Your task to perform on an android device: see tabs open on other devices in the chrome app Image 0: 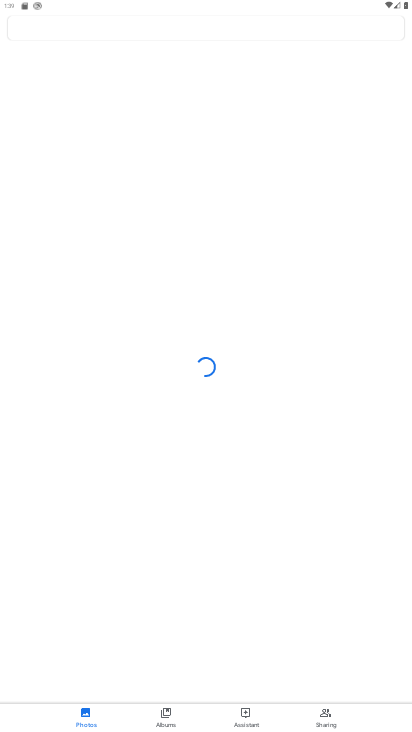
Step 0: press home button
Your task to perform on an android device: see tabs open on other devices in the chrome app Image 1: 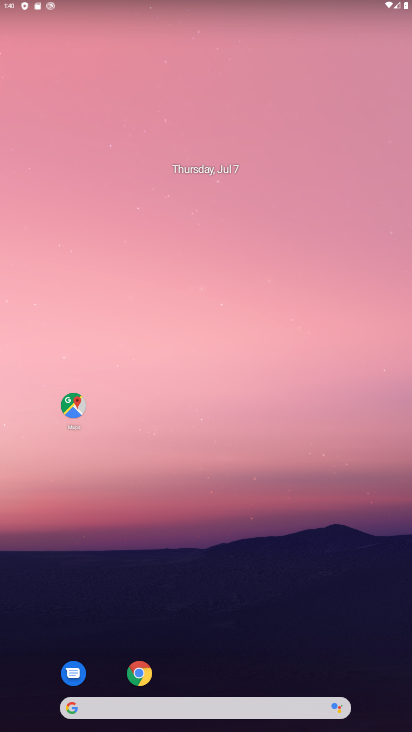
Step 1: click (147, 672)
Your task to perform on an android device: see tabs open on other devices in the chrome app Image 2: 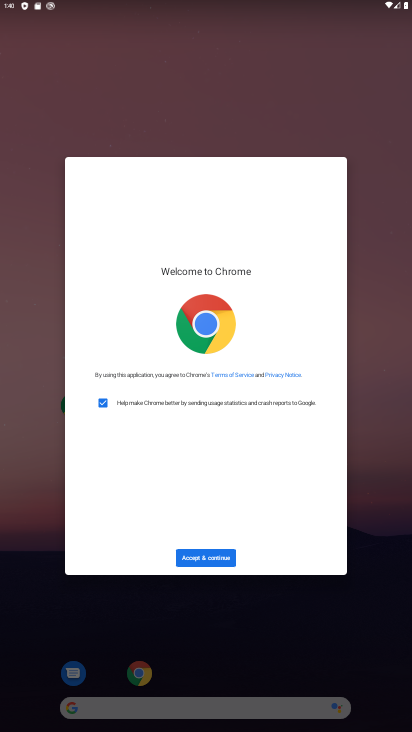
Step 2: click (216, 557)
Your task to perform on an android device: see tabs open on other devices in the chrome app Image 3: 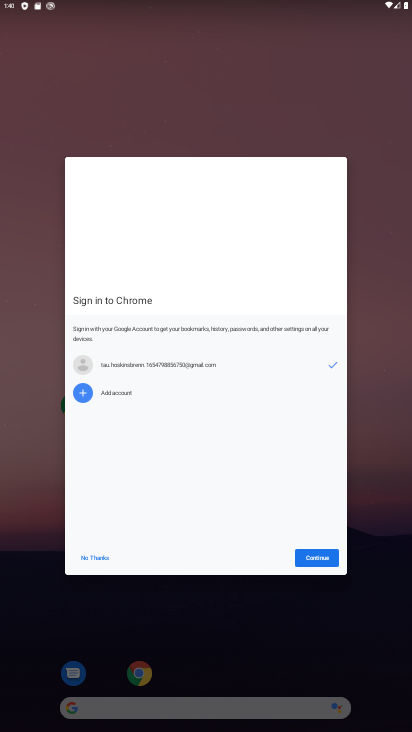
Step 3: click (324, 557)
Your task to perform on an android device: see tabs open on other devices in the chrome app Image 4: 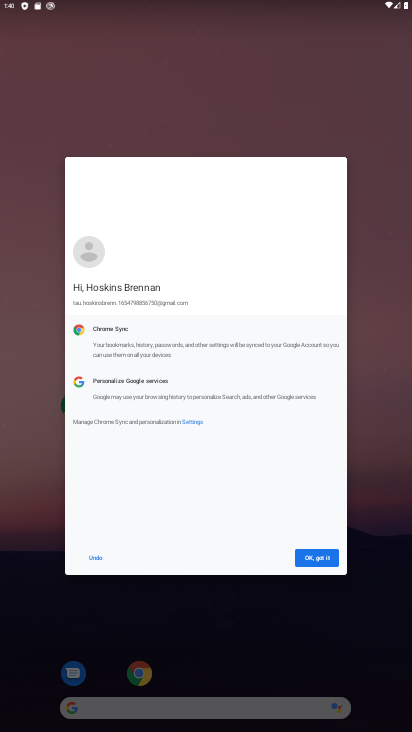
Step 4: click (322, 557)
Your task to perform on an android device: see tabs open on other devices in the chrome app Image 5: 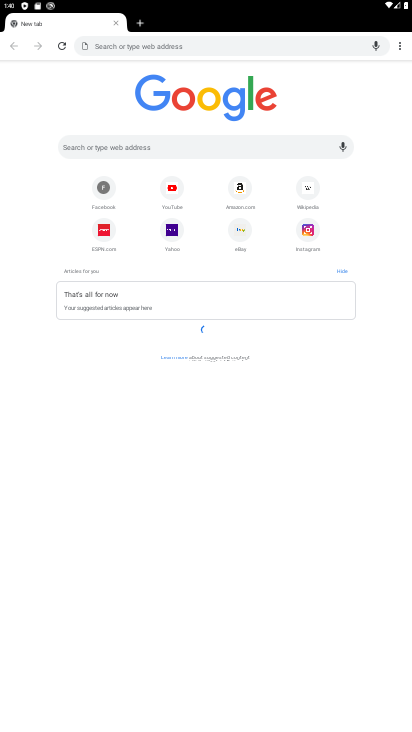
Step 5: task complete